Your task to perform on an android device: find photos in the google photos app Image 0: 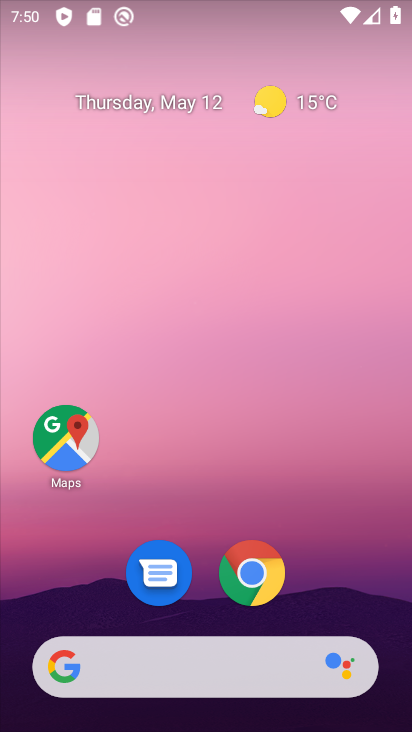
Step 0: drag from (306, 581) to (168, 114)
Your task to perform on an android device: find photos in the google photos app Image 1: 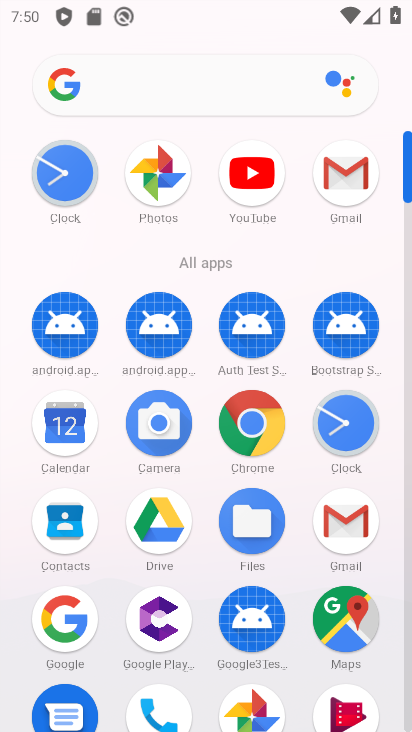
Step 1: click (156, 180)
Your task to perform on an android device: find photos in the google photos app Image 2: 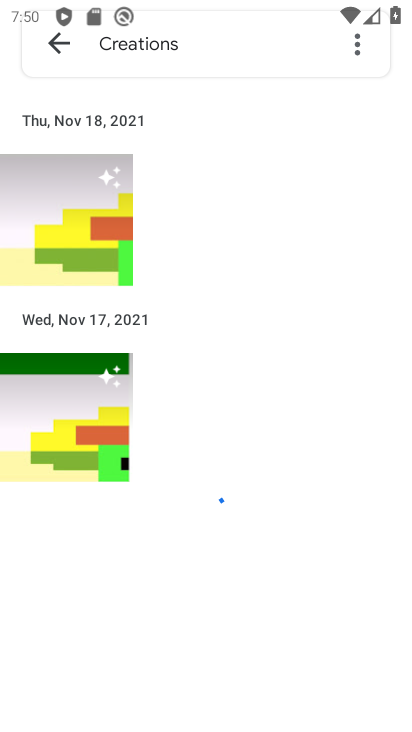
Step 2: click (57, 43)
Your task to perform on an android device: find photos in the google photos app Image 3: 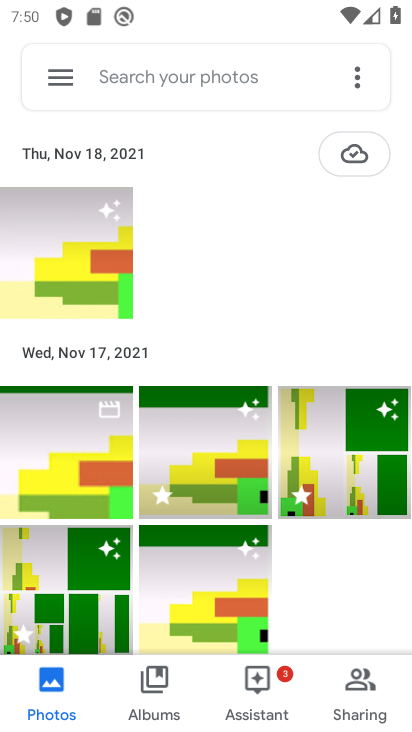
Step 3: click (138, 84)
Your task to perform on an android device: find photos in the google photos app Image 4: 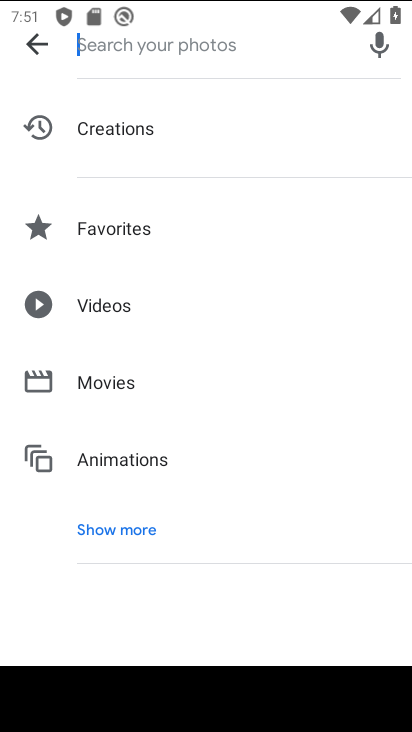
Step 4: task complete